Your task to perform on an android device: Empty the shopping cart on target. Image 0: 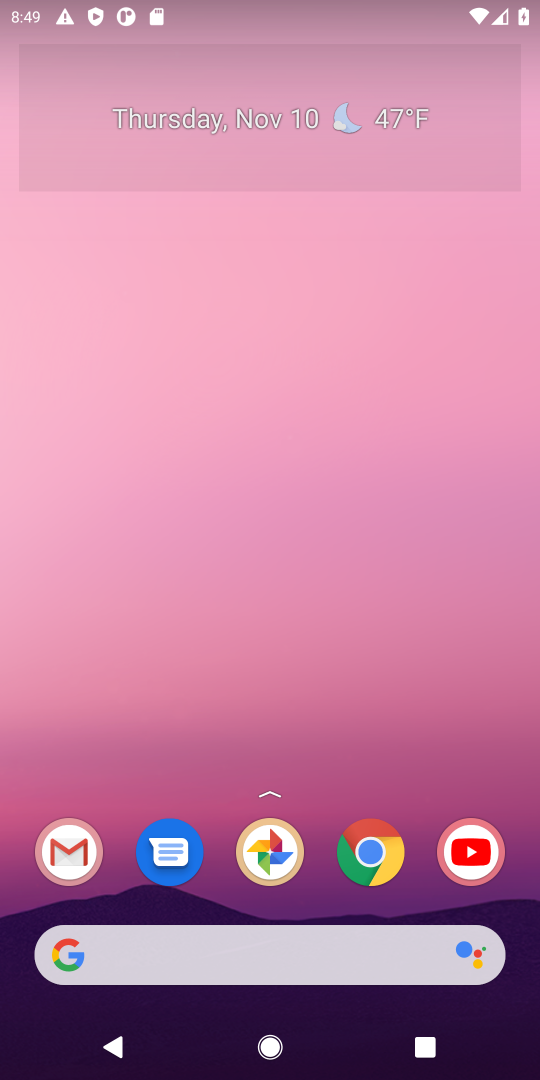
Step 0: press home button
Your task to perform on an android device: Empty the shopping cart on target. Image 1: 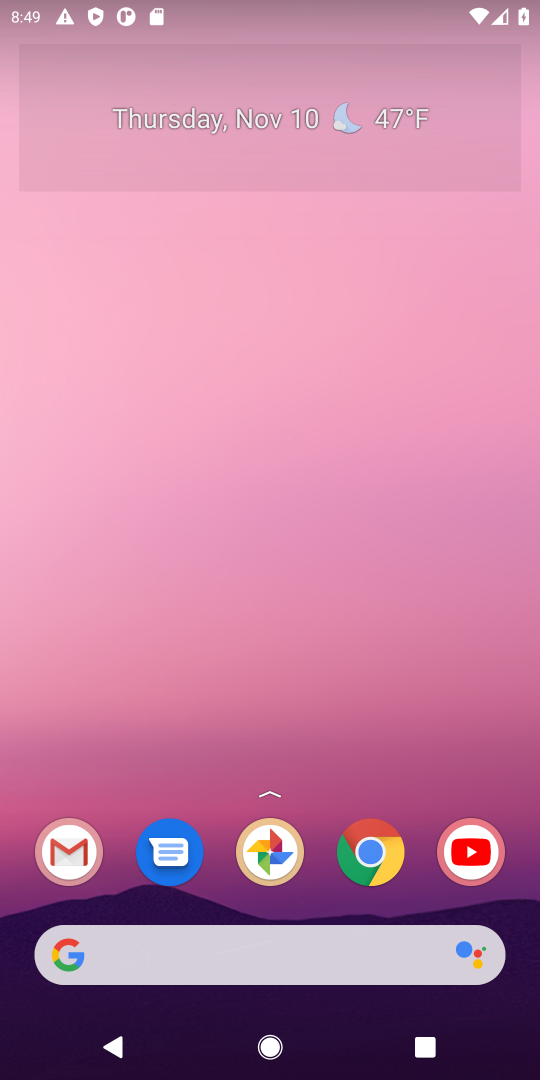
Step 1: click (363, 853)
Your task to perform on an android device: Empty the shopping cart on target. Image 2: 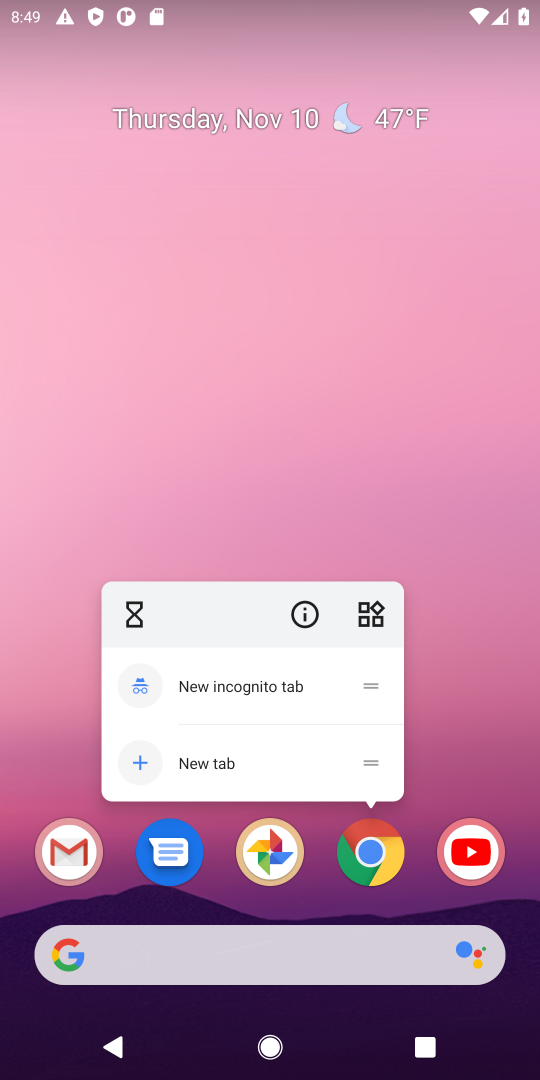
Step 2: click (363, 853)
Your task to perform on an android device: Empty the shopping cart on target. Image 3: 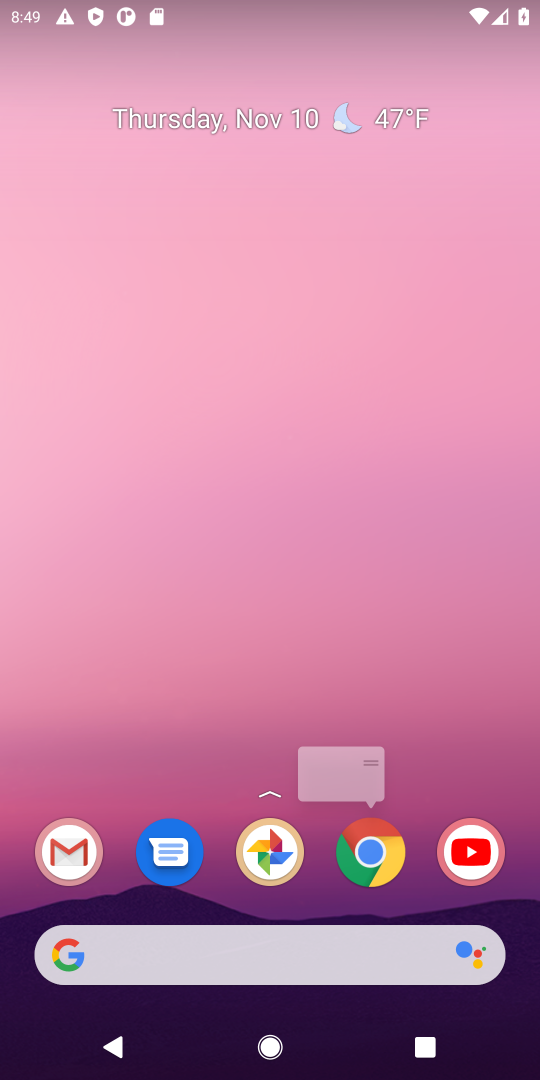
Step 3: click (363, 853)
Your task to perform on an android device: Empty the shopping cart on target. Image 4: 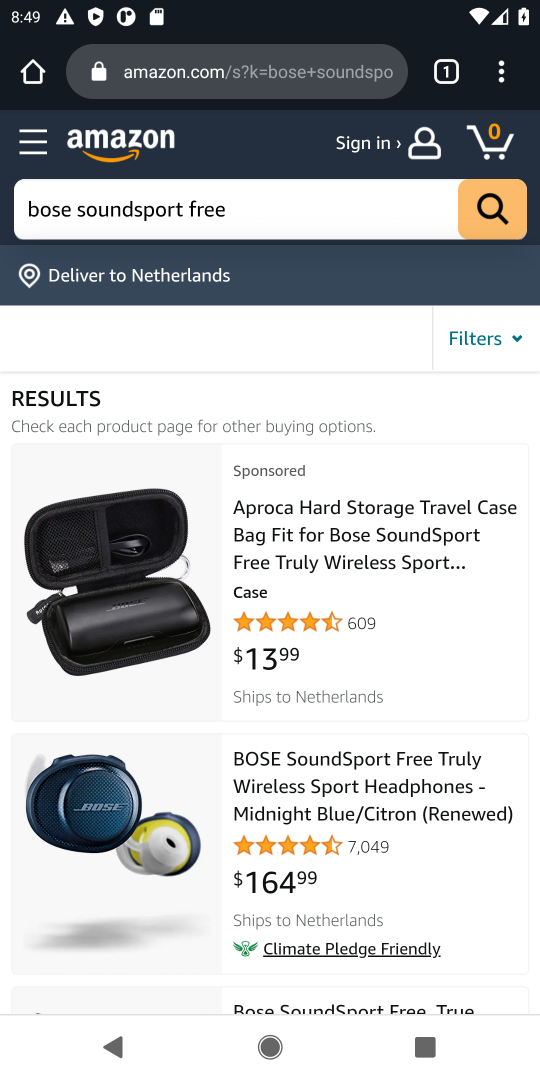
Step 4: click (289, 77)
Your task to perform on an android device: Empty the shopping cart on target. Image 5: 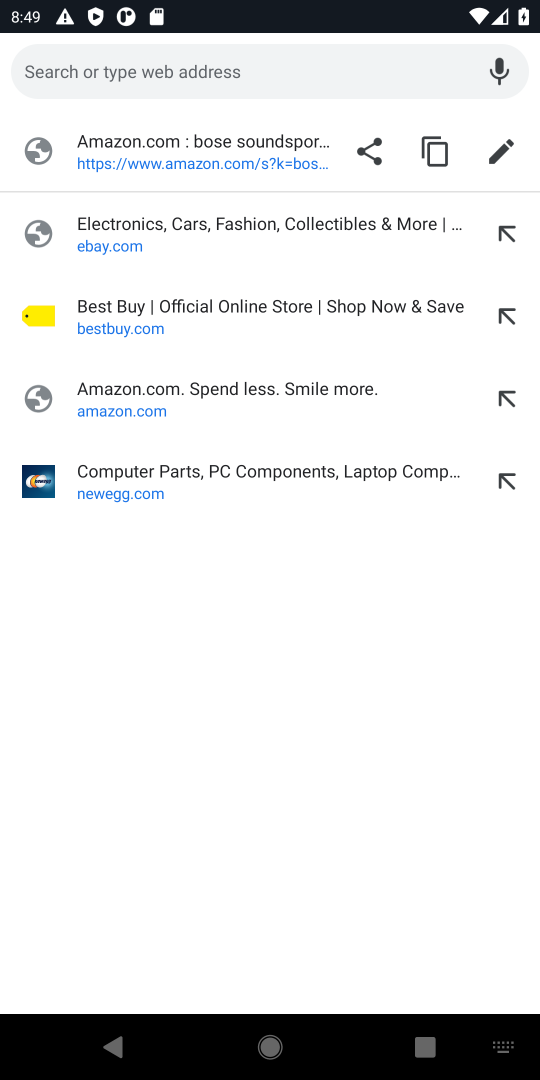
Step 5: type "target"
Your task to perform on an android device: Empty the shopping cart on target. Image 6: 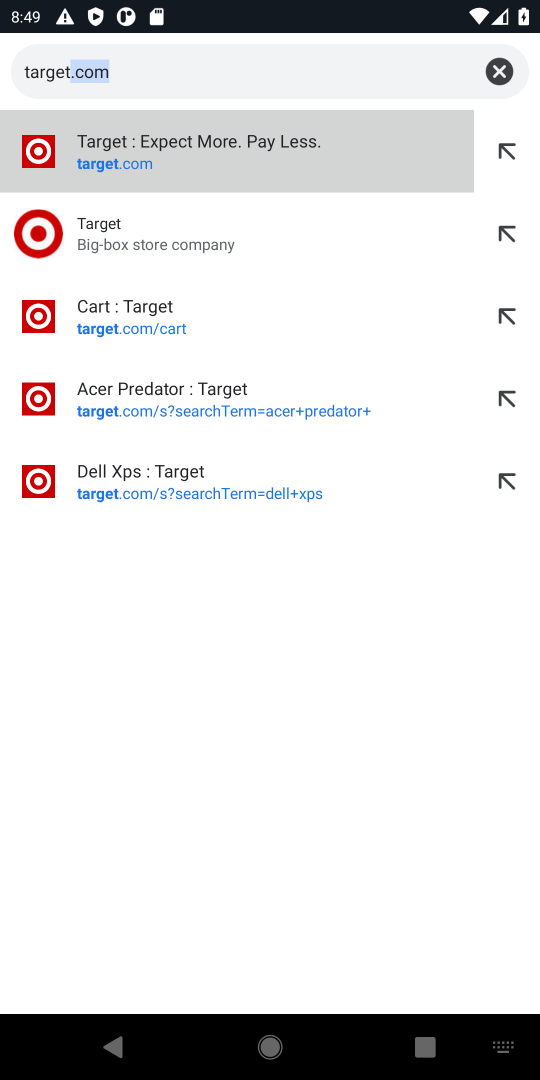
Step 6: press enter
Your task to perform on an android device: Empty the shopping cart on target. Image 7: 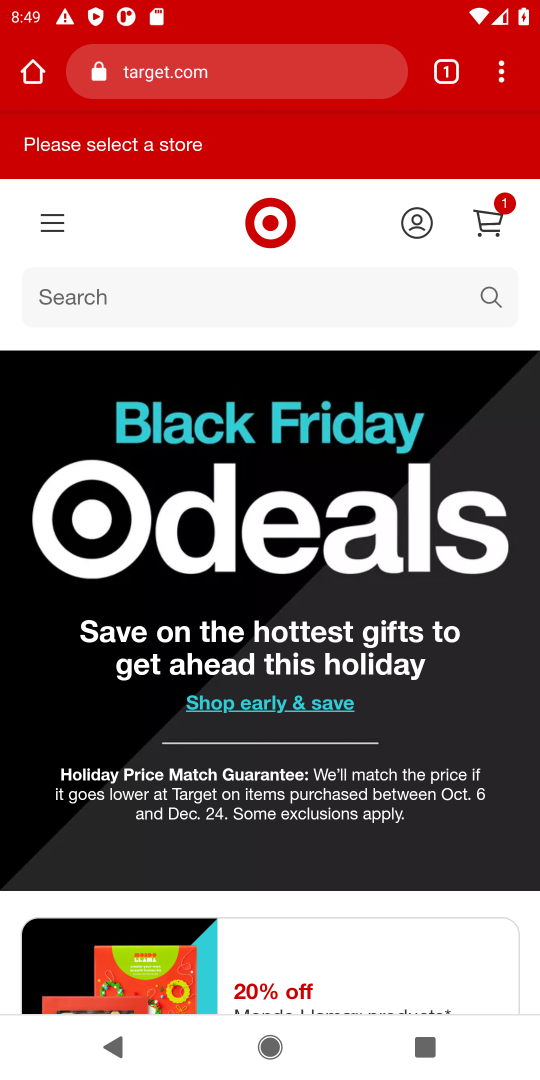
Step 7: click (502, 212)
Your task to perform on an android device: Empty the shopping cart on target. Image 8: 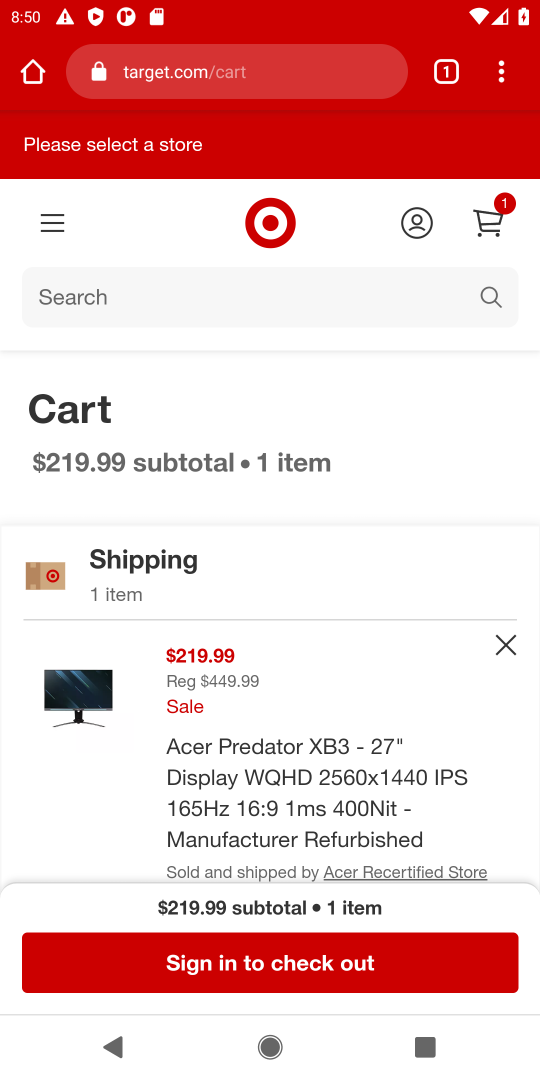
Step 8: click (508, 640)
Your task to perform on an android device: Empty the shopping cart on target. Image 9: 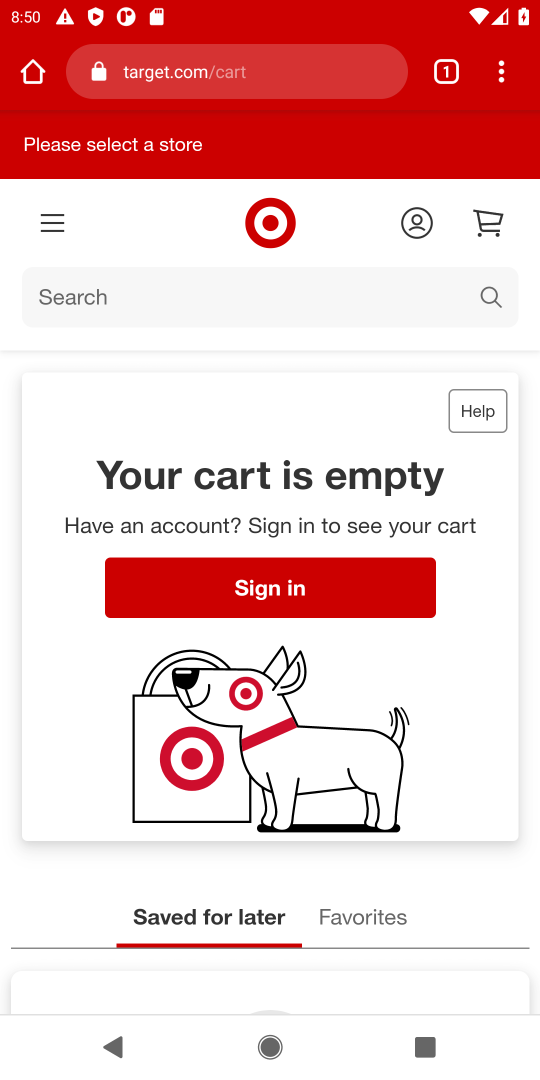
Step 9: task complete